Your task to perform on an android device: Open internet settings Image 0: 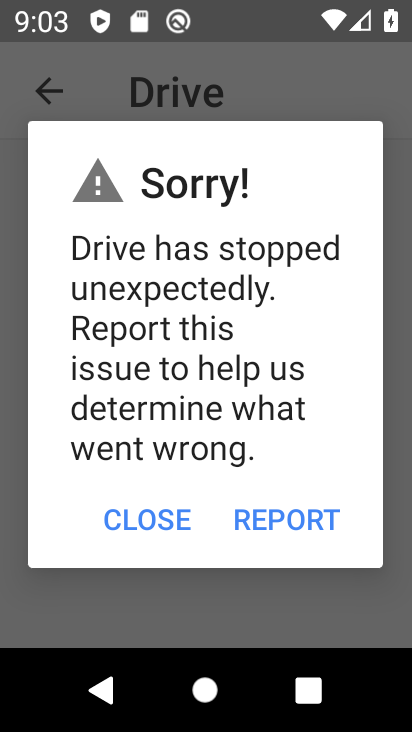
Step 0: press home button
Your task to perform on an android device: Open internet settings Image 1: 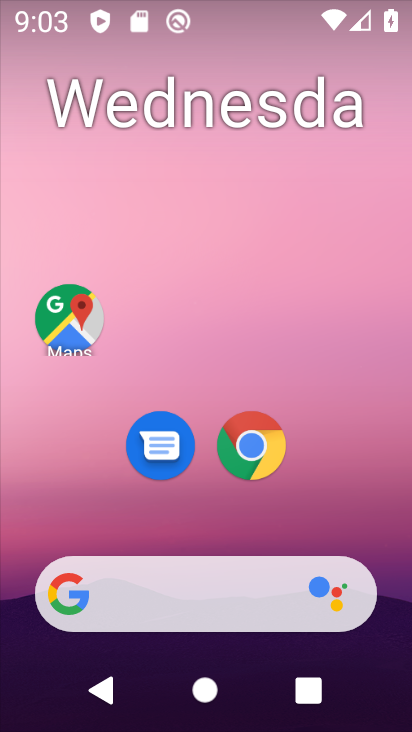
Step 1: drag from (179, 577) to (260, 193)
Your task to perform on an android device: Open internet settings Image 2: 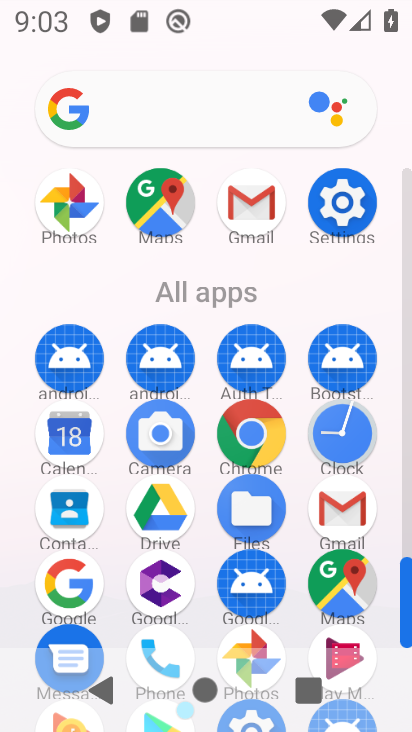
Step 2: click (323, 217)
Your task to perform on an android device: Open internet settings Image 3: 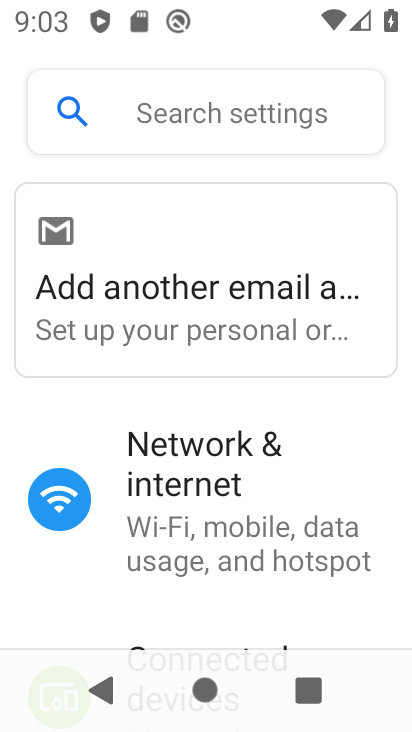
Step 3: click (201, 472)
Your task to perform on an android device: Open internet settings Image 4: 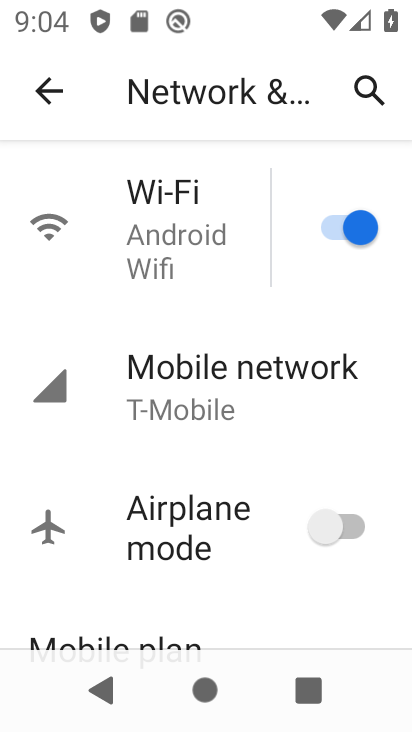
Step 4: task complete